Your task to perform on an android device: Check the weather Image 0: 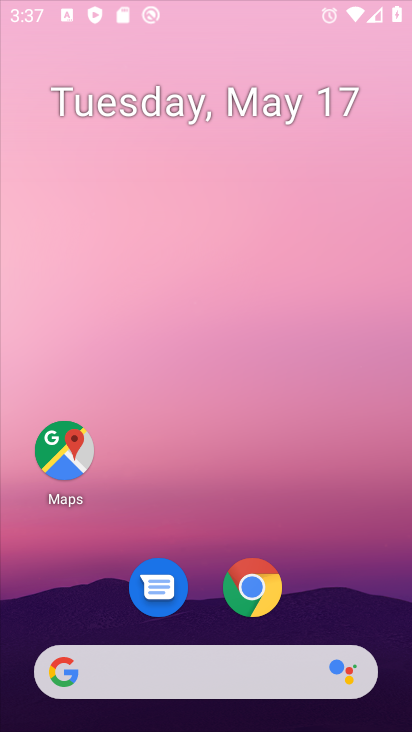
Step 0: click (276, 131)
Your task to perform on an android device: Check the weather Image 1: 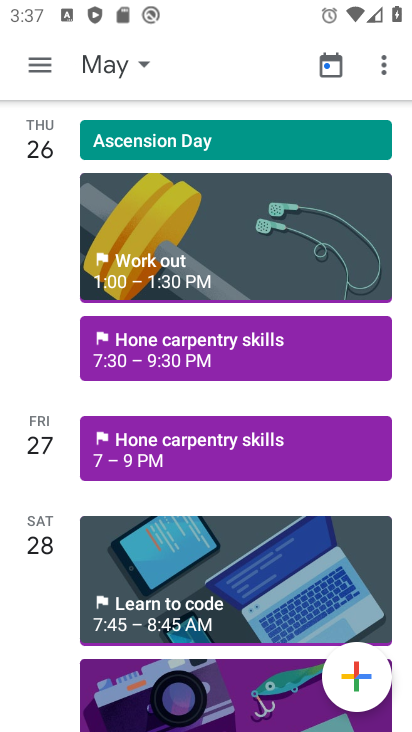
Step 1: drag from (245, 616) to (267, 223)
Your task to perform on an android device: Check the weather Image 2: 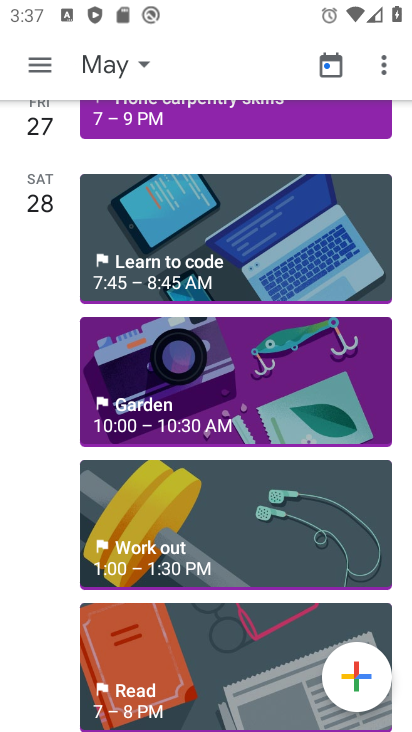
Step 2: click (113, 61)
Your task to perform on an android device: Check the weather Image 3: 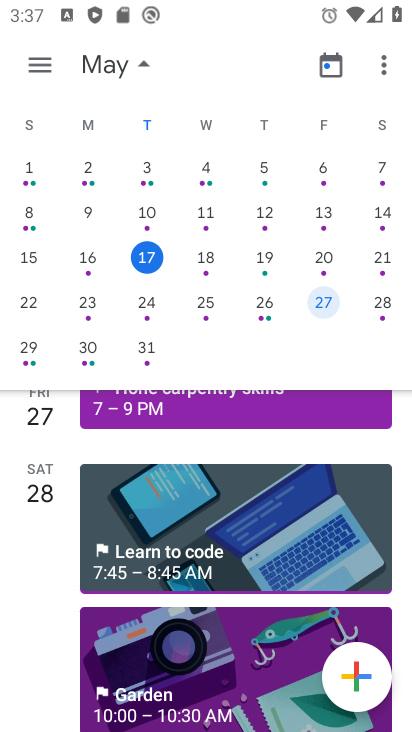
Step 3: press home button
Your task to perform on an android device: Check the weather Image 4: 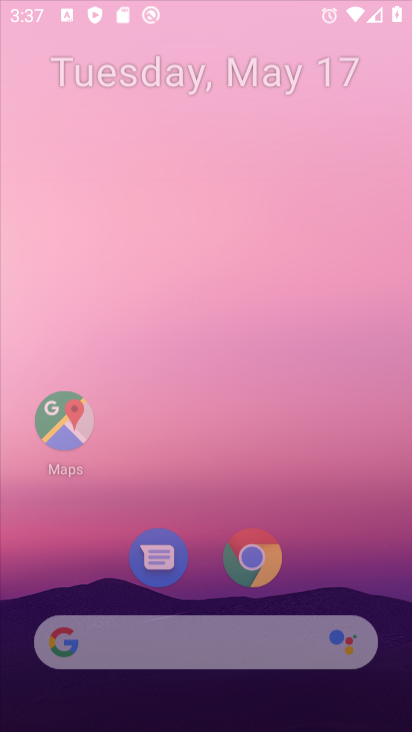
Step 4: drag from (261, 595) to (342, 56)
Your task to perform on an android device: Check the weather Image 5: 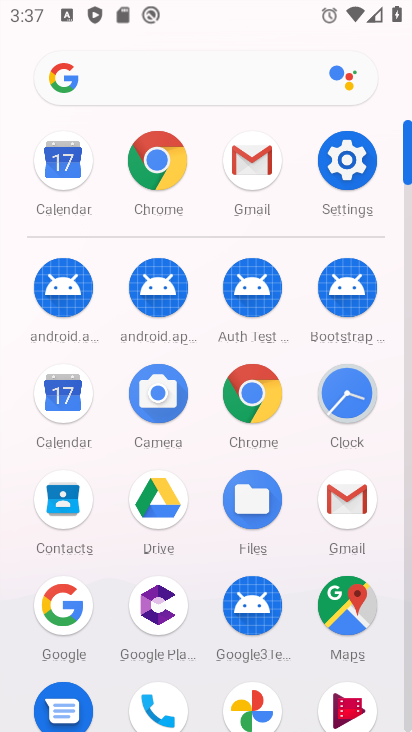
Step 5: click (187, 95)
Your task to perform on an android device: Check the weather Image 6: 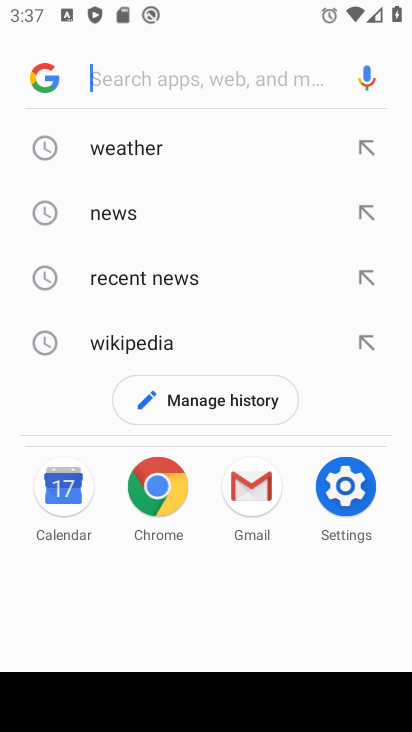
Step 6: click (151, 151)
Your task to perform on an android device: Check the weather Image 7: 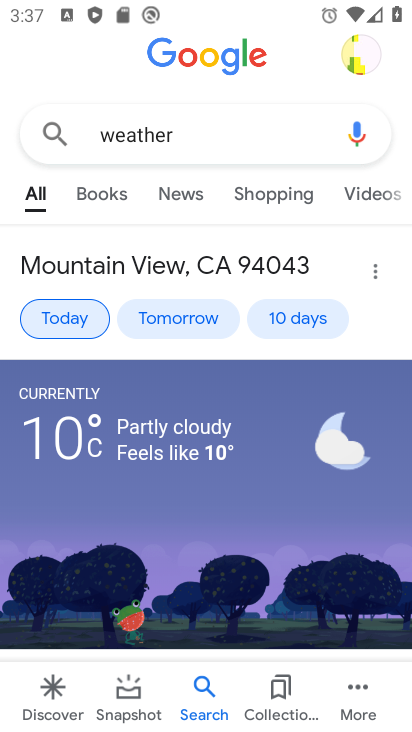
Step 7: task complete